Your task to perform on an android device: turn off priority inbox in the gmail app Image 0: 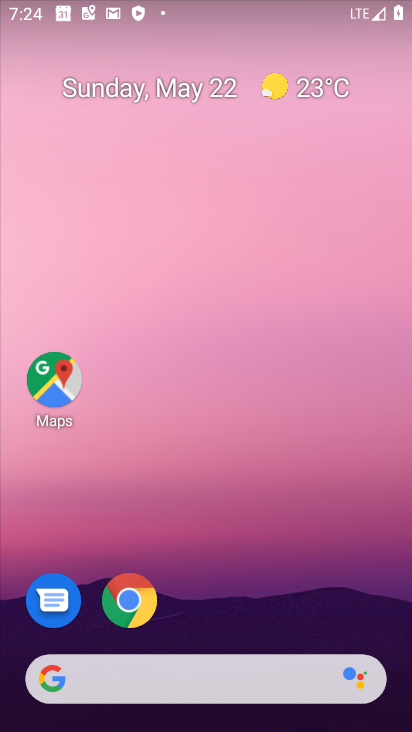
Step 0: drag from (380, 642) to (325, 35)
Your task to perform on an android device: turn off priority inbox in the gmail app Image 1: 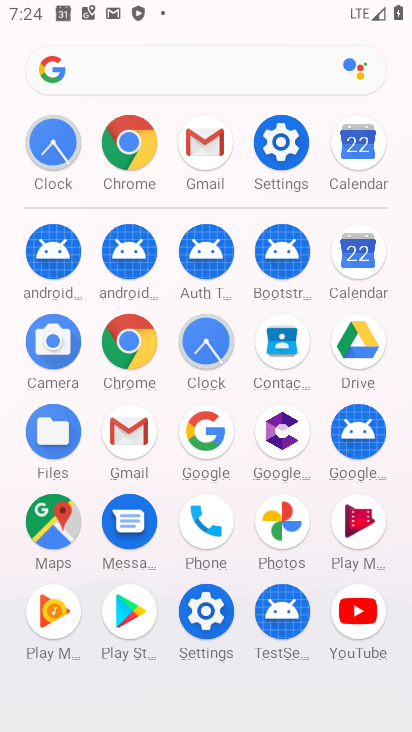
Step 1: click (145, 443)
Your task to perform on an android device: turn off priority inbox in the gmail app Image 2: 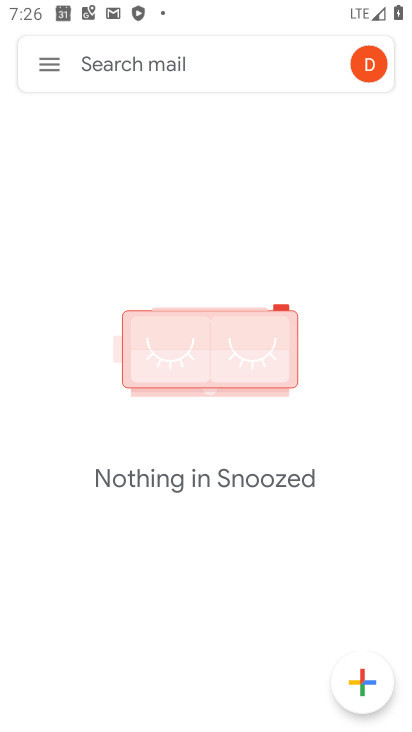
Step 2: click (48, 44)
Your task to perform on an android device: turn off priority inbox in the gmail app Image 3: 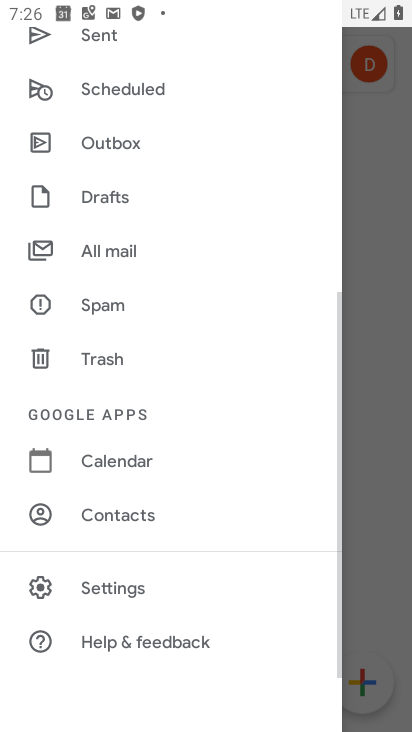
Step 3: click (142, 595)
Your task to perform on an android device: turn off priority inbox in the gmail app Image 4: 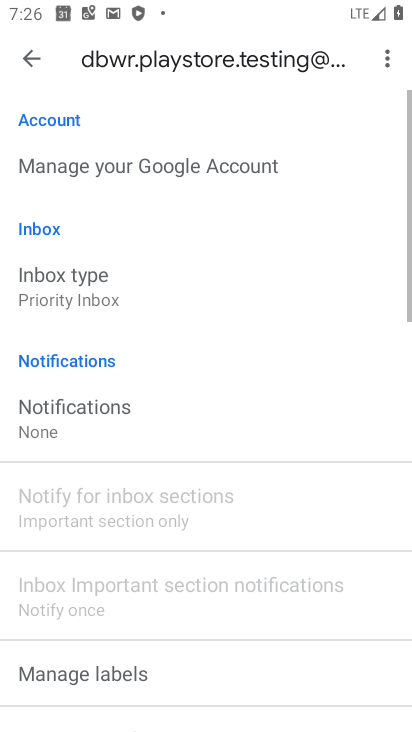
Step 4: click (121, 279)
Your task to perform on an android device: turn off priority inbox in the gmail app Image 5: 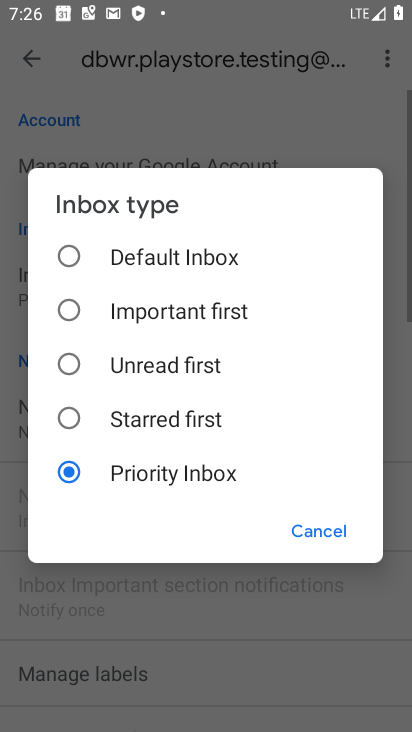
Step 5: click (138, 252)
Your task to perform on an android device: turn off priority inbox in the gmail app Image 6: 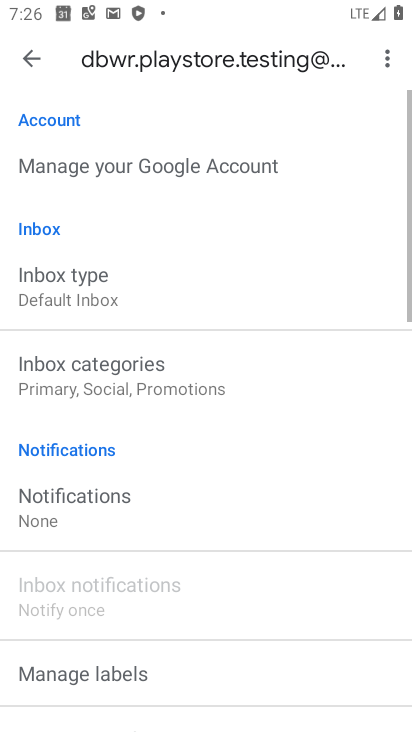
Step 6: task complete